Your task to perform on an android device: toggle notifications settings in the gmail app Image 0: 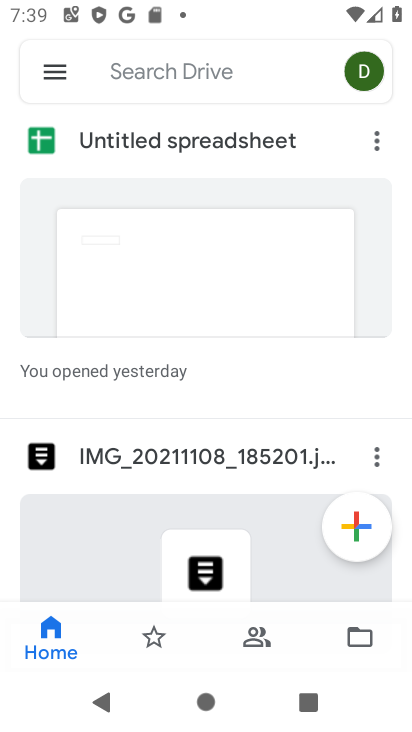
Step 0: press home button
Your task to perform on an android device: toggle notifications settings in the gmail app Image 1: 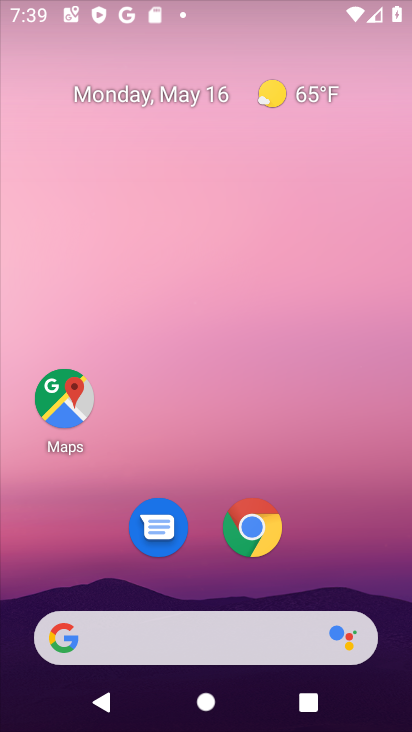
Step 1: drag from (251, 595) to (272, 289)
Your task to perform on an android device: toggle notifications settings in the gmail app Image 2: 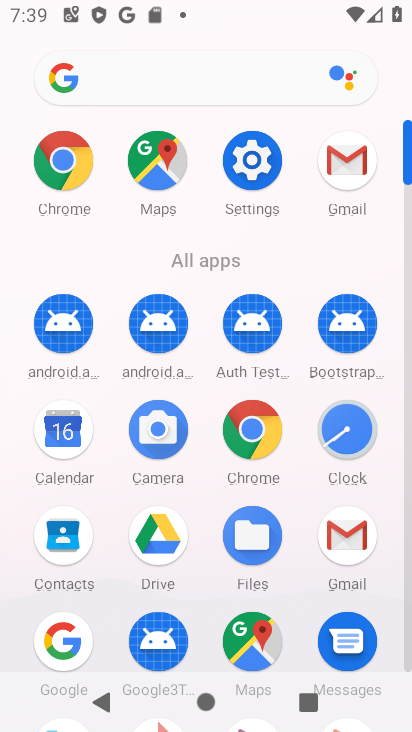
Step 2: click (344, 531)
Your task to perform on an android device: toggle notifications settings in the gmail app Image 3: 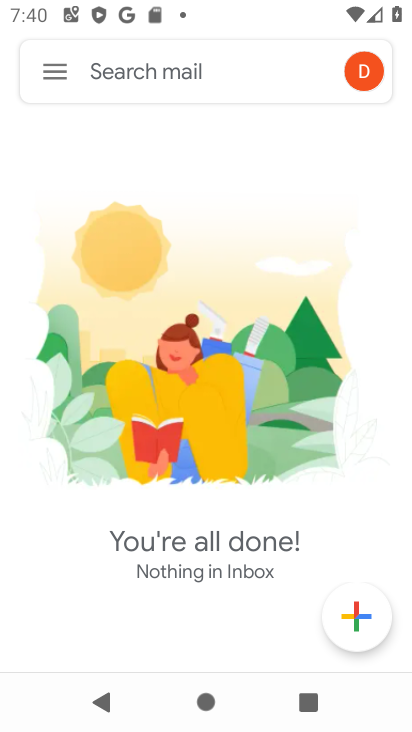
Step 3: click (40, 67)
Your task to perform on an android device: toggle notifications settings in the gmail app Image 4: 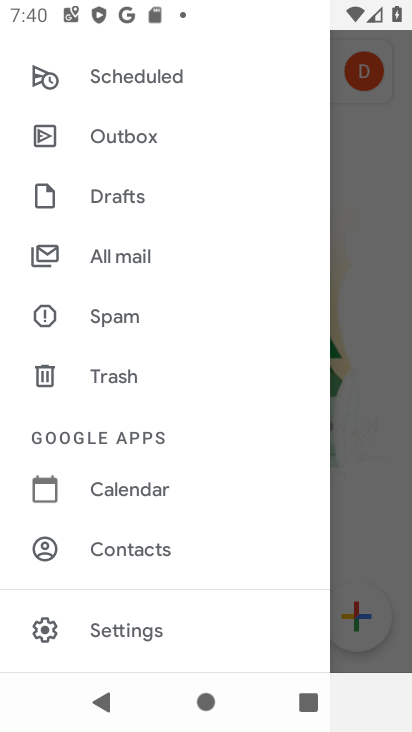
Step 4: click (118, 624)
Your task to perform on an android device: toggle notifications settings in the gmail app Image 5: 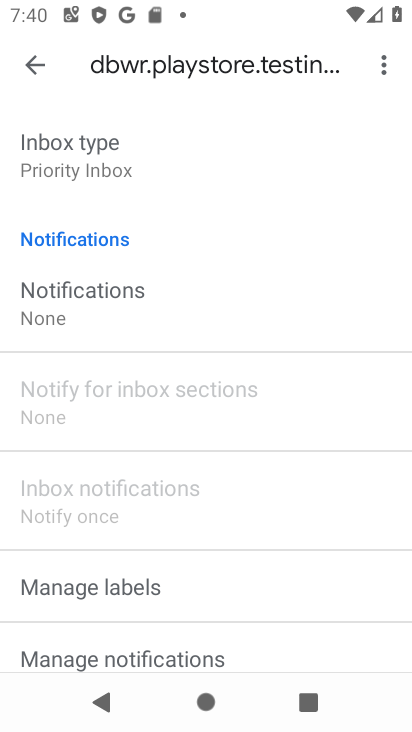
Step 5: click (162, 578)
Your task to perform on an android device: toggle notifications settings in the gmail app Image 6: 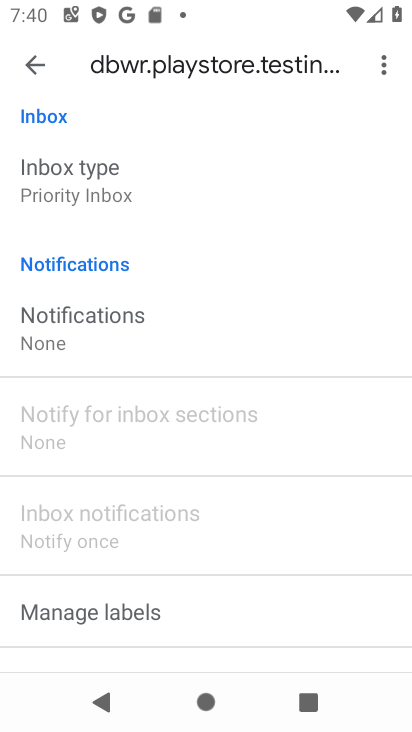
Step 6: click (80, 326)
Your task to perform on an android device: toggle notifications settings in the gmail app Image 7: 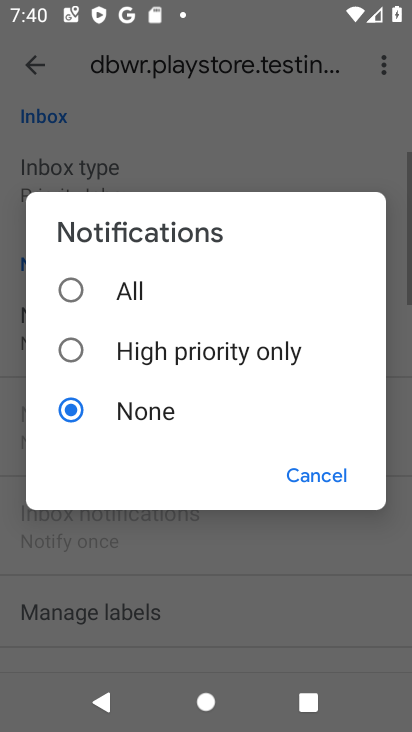
Step 7: click (130, 281)
Your task to perform on an android device: toggle notifications settings in the gmail app Image 8: 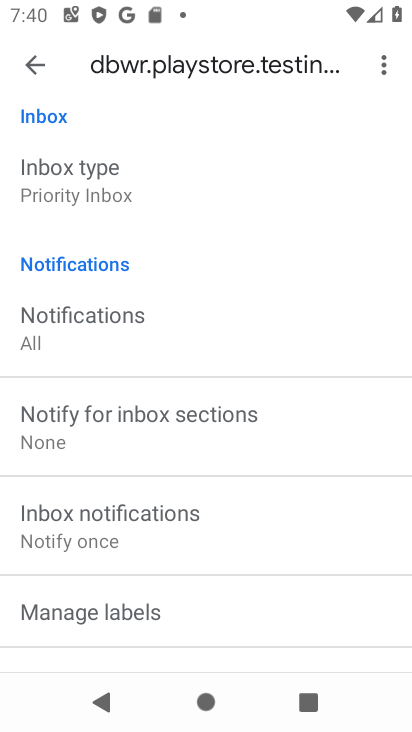
Step 8: task complete